Your task to perform on an android device: What's on my calendar tomorrow? Image 0: 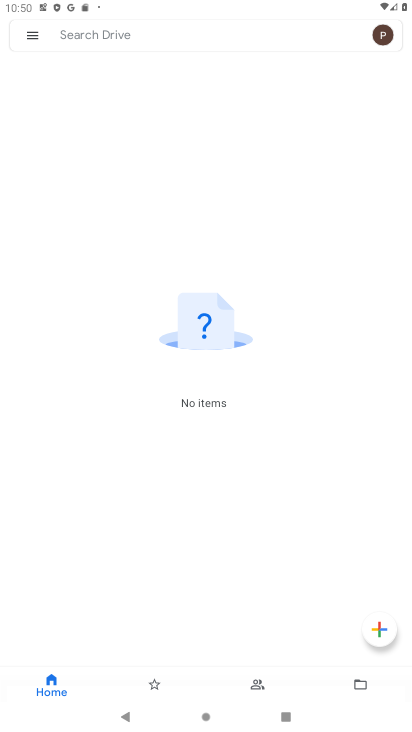
Step 0: press home button
Your task to perform on an android device: What's on my calendar tomorrow? Image 1: 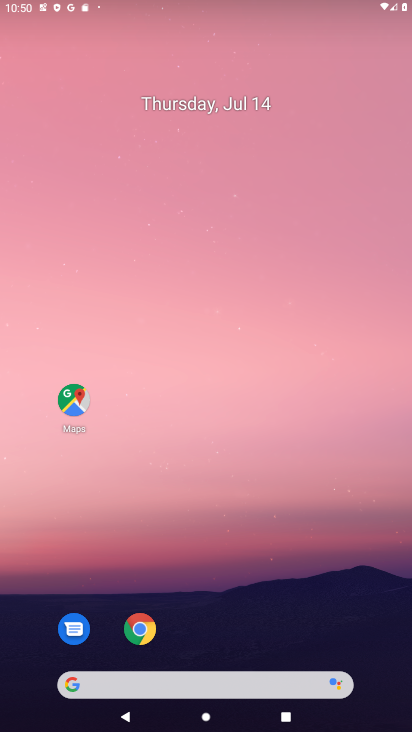
Step 1: drag from (12, 634) to (226, 169)
Your task to perform on an android device: What's on my calendar tomorrow? Image 2: 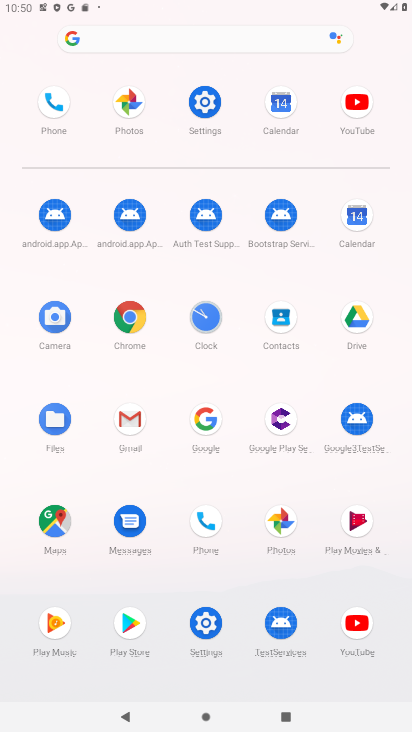
Step 2: click (361, 226)
Your task to perform on an android device: What's on my calendar tomorrow? Image 3: 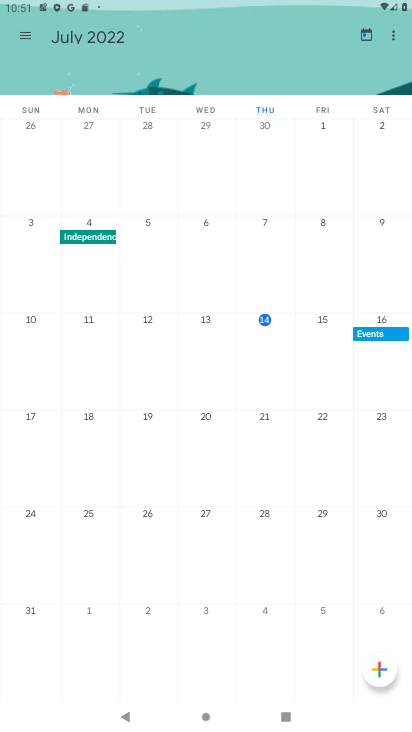
Step 3: click (328, 325)
Your task to perform on an android device: What's on my calendar tomorrow? Image 4: 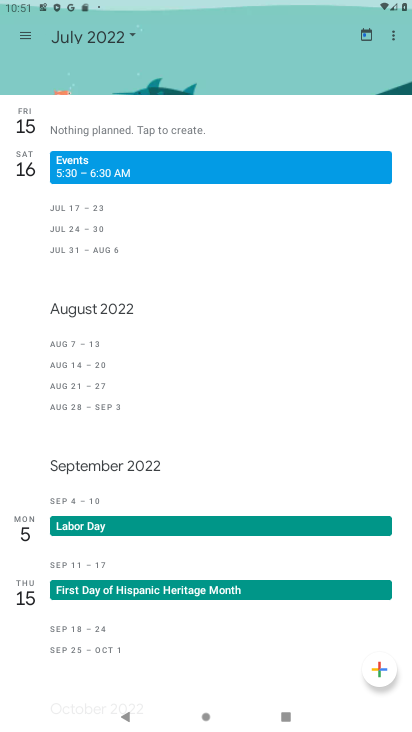
Step 4: task complete